Your task to perform on an android device: turn off wifi Image 0: 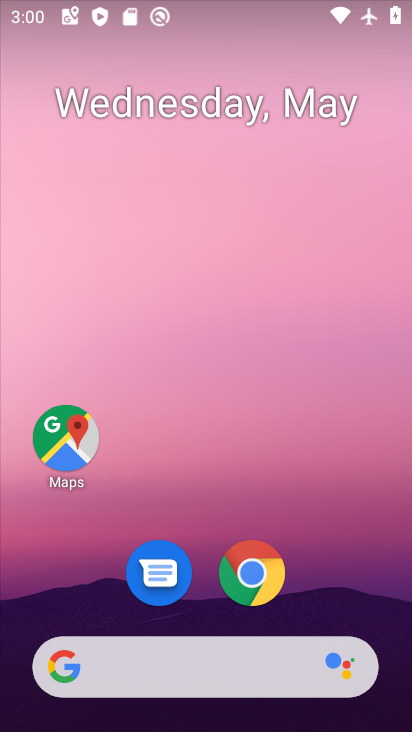
Step 0: drag from (330, 577) to (381, 1)
Your task to perform on an android device: turn off wifi Image 1: 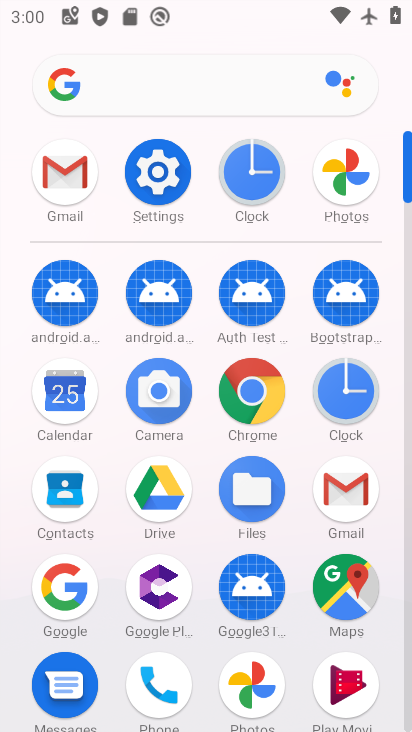
Step 1: click (162, 173)
Your task to perform on an android device: turn off wifi Image 2: 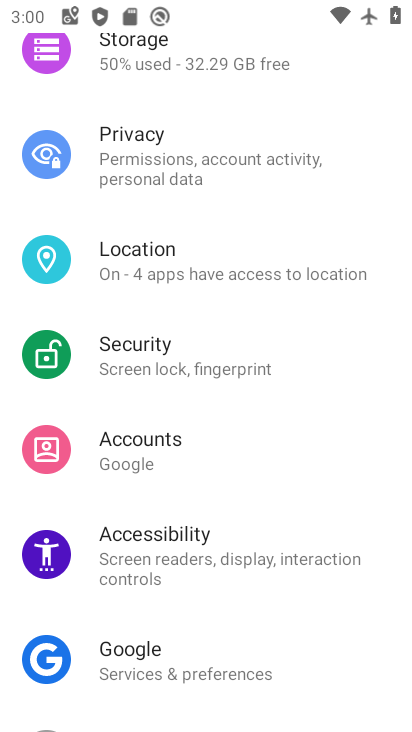
Step 2: drag from (197, 232) to (257, 593)
Your task to perform on an android device: turn off wifi Image 3: 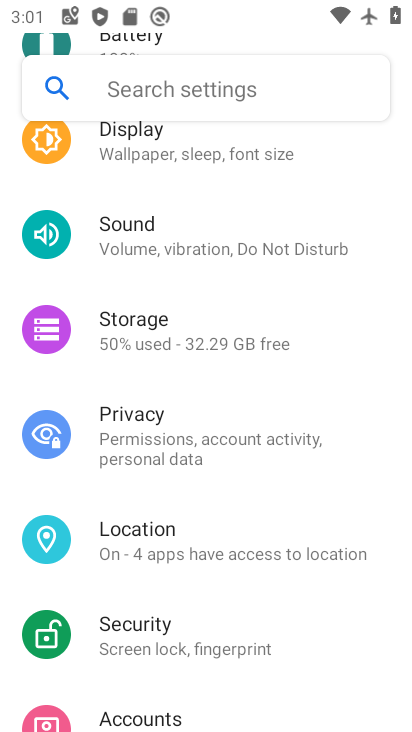
Step 3: drag from (228, 254) to (270, 609)
Your task to perform on an android device: turn off wifi Image 4: 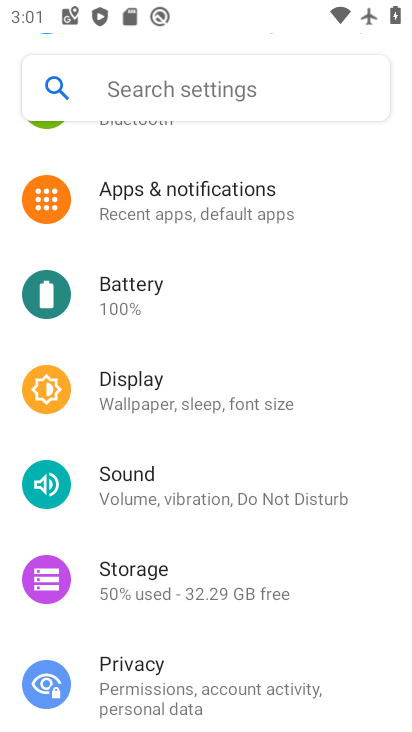
Step 4: drag from (222, 259) to (279, 610)
Your task to perform on an android device: turn off wifi Image 5: 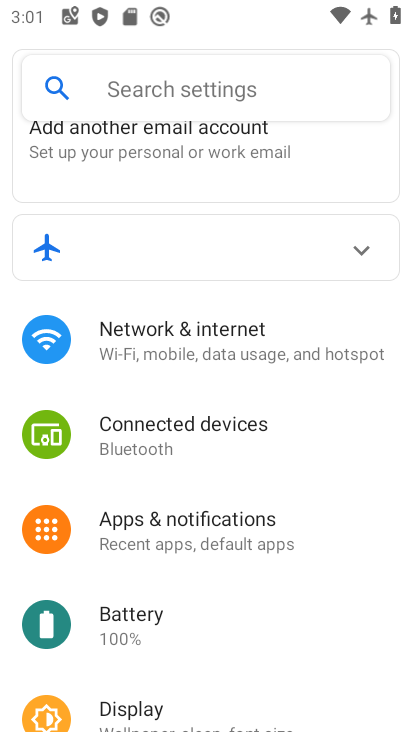
Step 5: click (165, 321)
Your task to perform on an android device: turn off wifi Image 6: 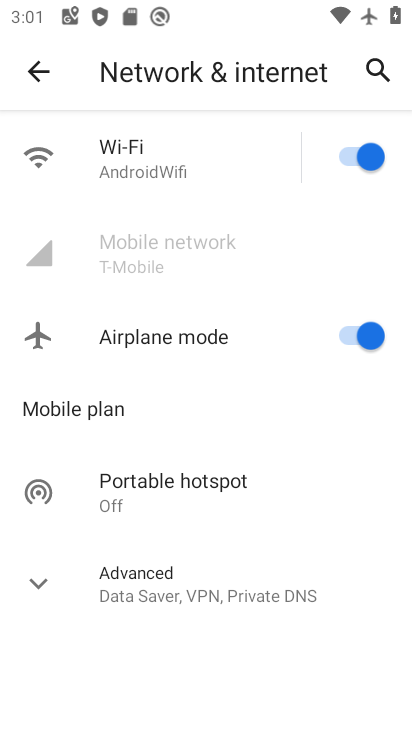
Step 6: click (352, 155)
Your task to perform on an android device: turn off wifi Image 7: 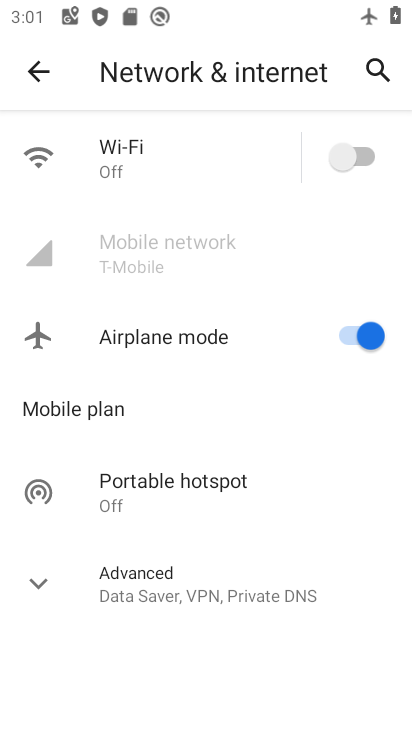
Step 7: task complete